Your task to perform on an android device: Go to ESPN.com Image 0: 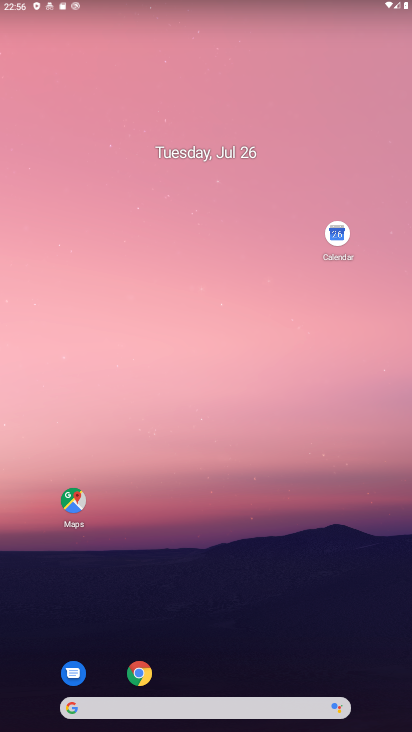
Step 0: drag from (245, 581) to (202, 120)
Your task to perform on an android device: Go to ESPN.com Image 1: 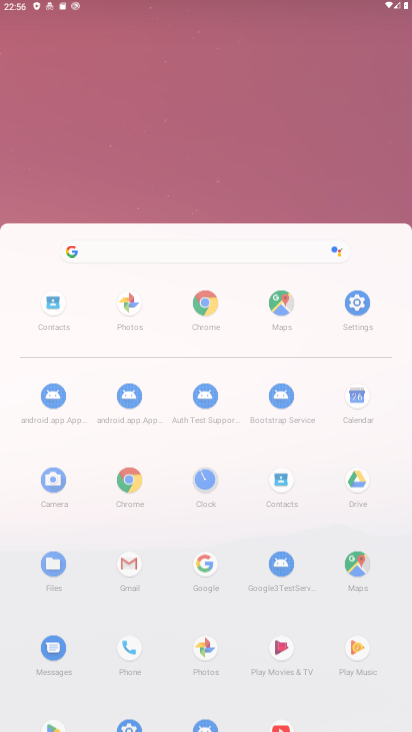
Step 1: drag from (218, 480) to (218, 167)
Your task to perform on an android device: Go to ESPN.com Image 2: 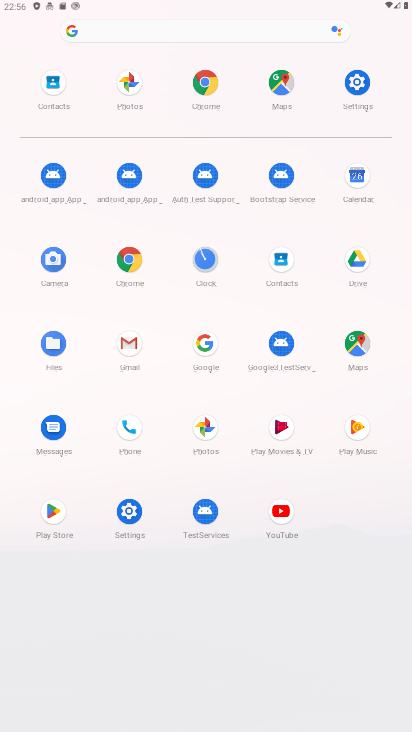
Step 2: click (201, 77)
Your task to perform on an android device: Go to ESPN.com Image 3: 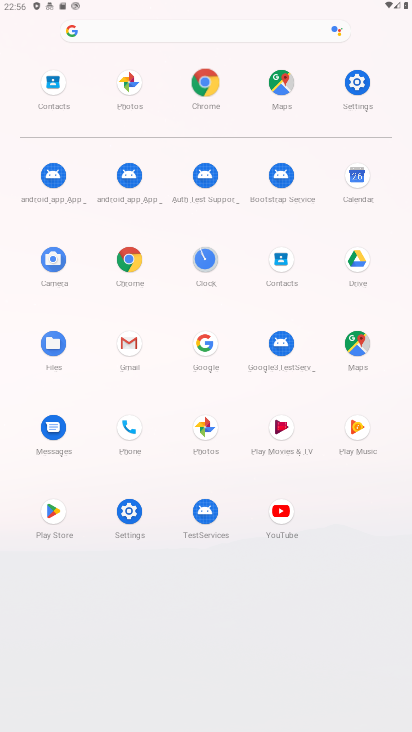
Step 3: click (201, 76)
Your task to perform on an android device: Go to ESPN.com Image 4: 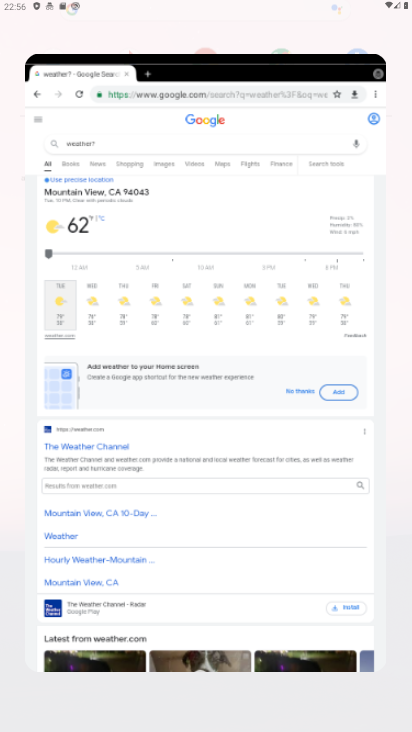
Step 4: click (204, 76)
Your task to perform on an android device: Go to ESPN.com Image 5: 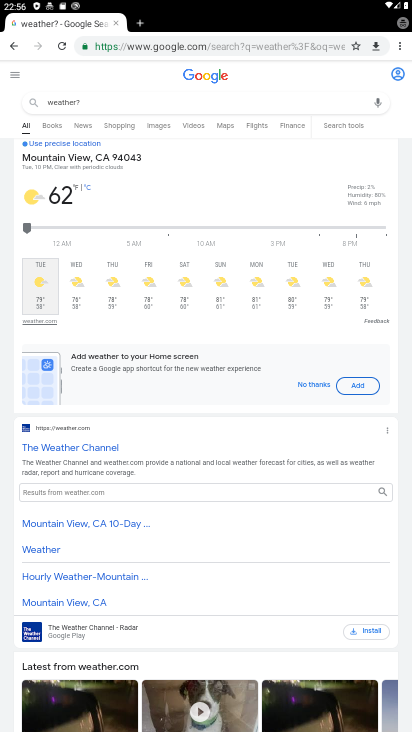
Step 5: click (403, 50)
Your task to perform on an android device: Go to ESPN.com Image 6: 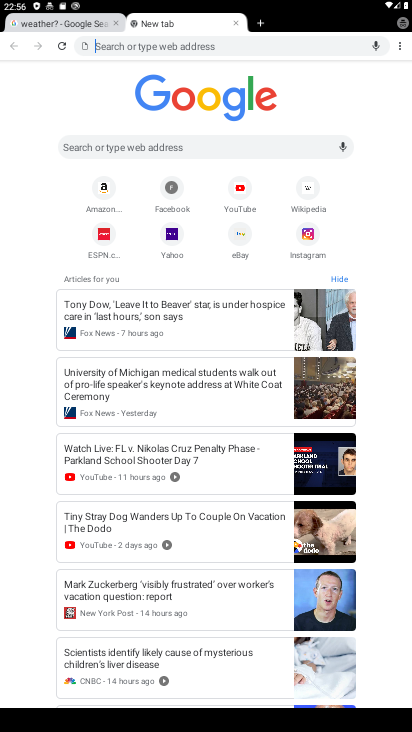
Step 6: click (105, 231)
Your task to perform on an android device: Go to ESPN.com Image 7: 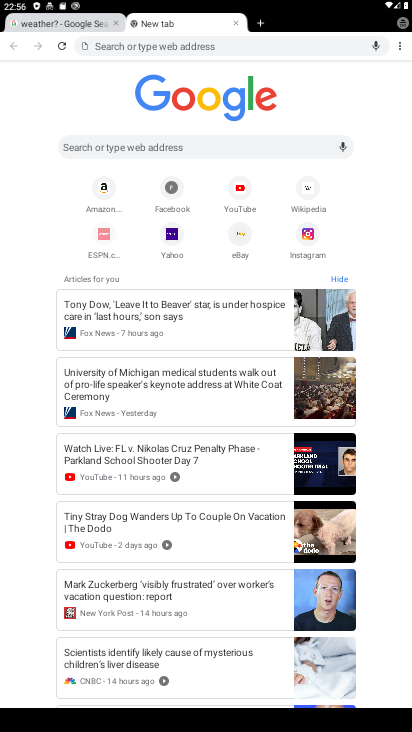
Step 7: click (108, 243)
Your task to perform on an android device: Go to ESPN.com Image 8: 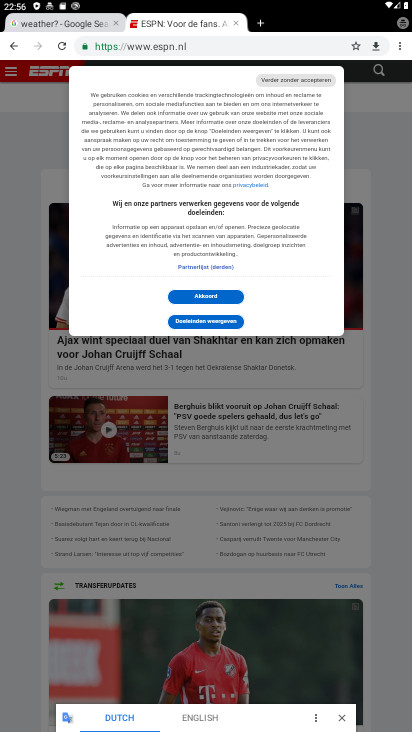
Step 8: task complete